Your task to perform on an android device: open sync settings in chrome Image 0: 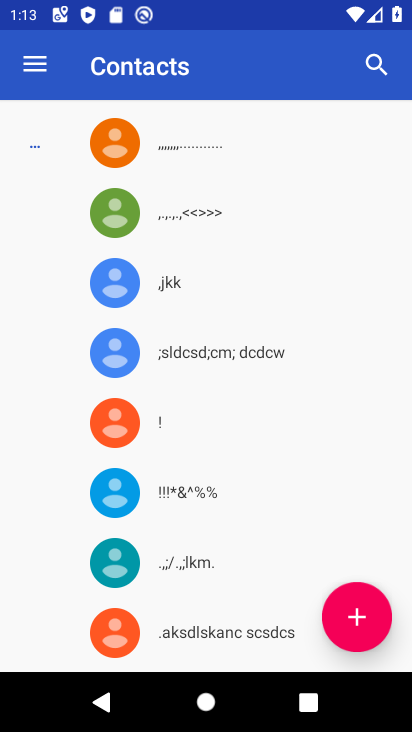
Step 0: press home button
Your task to perform on an android device: open sync settings in chrome Image 1: 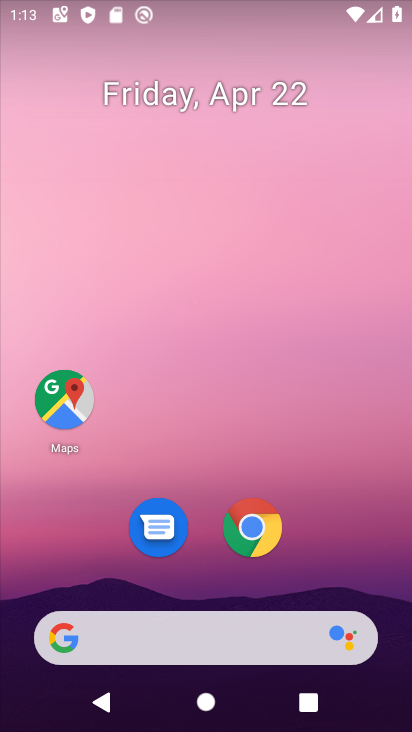
Step 1: click (256, 524)
Your task to perform on an android device: open sync settings in chrome Image 2: 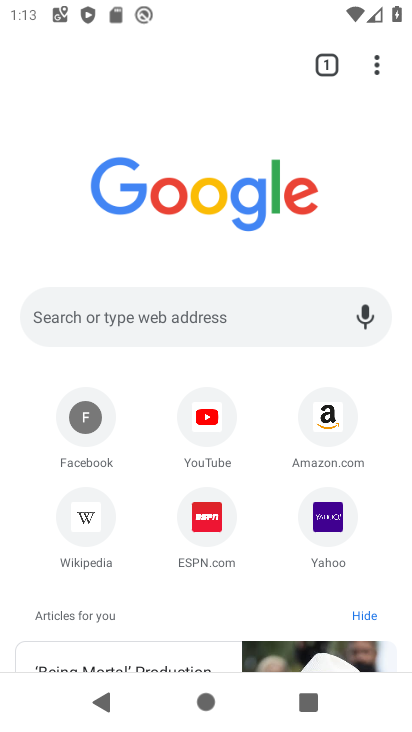
Step 2: click (380, 66)
Your task to perform on an android device: open sync settings in chrome Image 3: 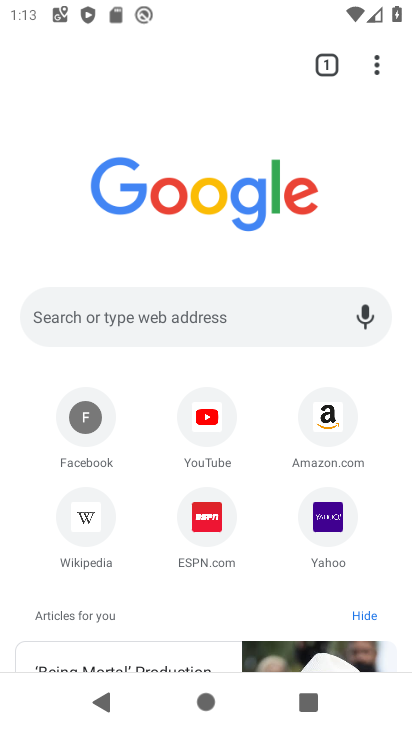
Step 3: click (376, 83)
Your task to perform on an android device: open sync settings in chrome Image 4: 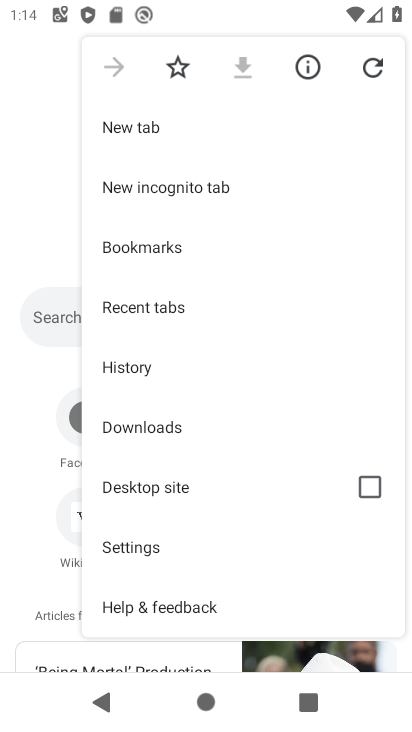
Step 4: click (156, 536)
Your task to perform on an android device: open sync settings in chrome Image 5: 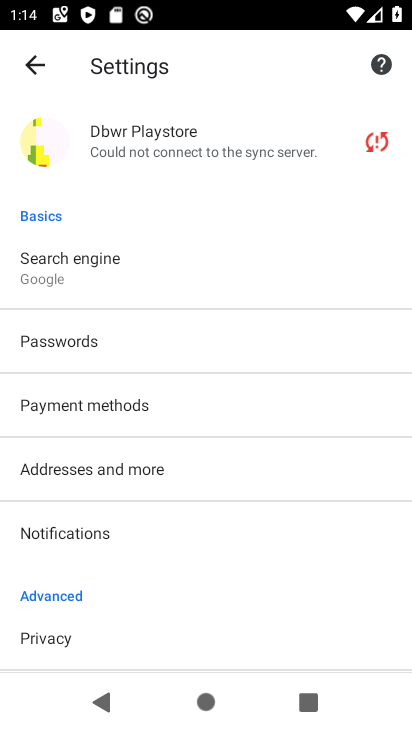
Step 5: click (168, 137)
Your task to perform on an android device: open sync settings in chrome Image 6: 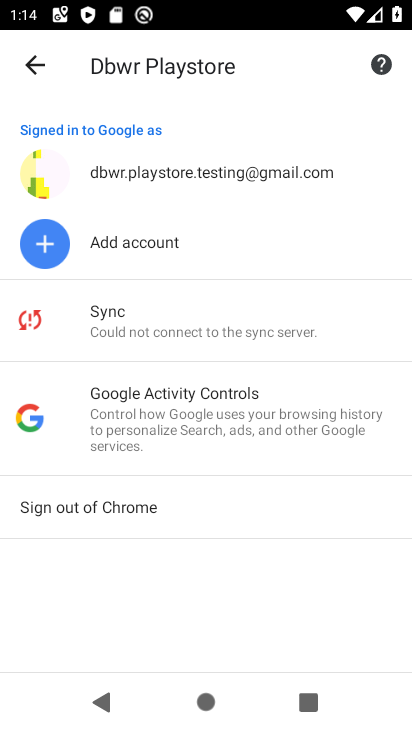
Step 6: click (127, 332)
Your task to perform on an android device: open sync settings in chrome Image 7: 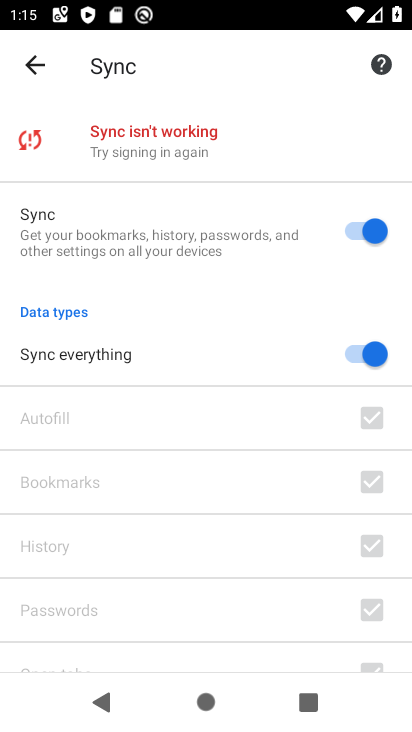
Step 7: task complete